Your task to perform on an android device: Clear the shopping cart on walmart.com. Add "razer blackwidow" to the cart on walmart.com Image 0: 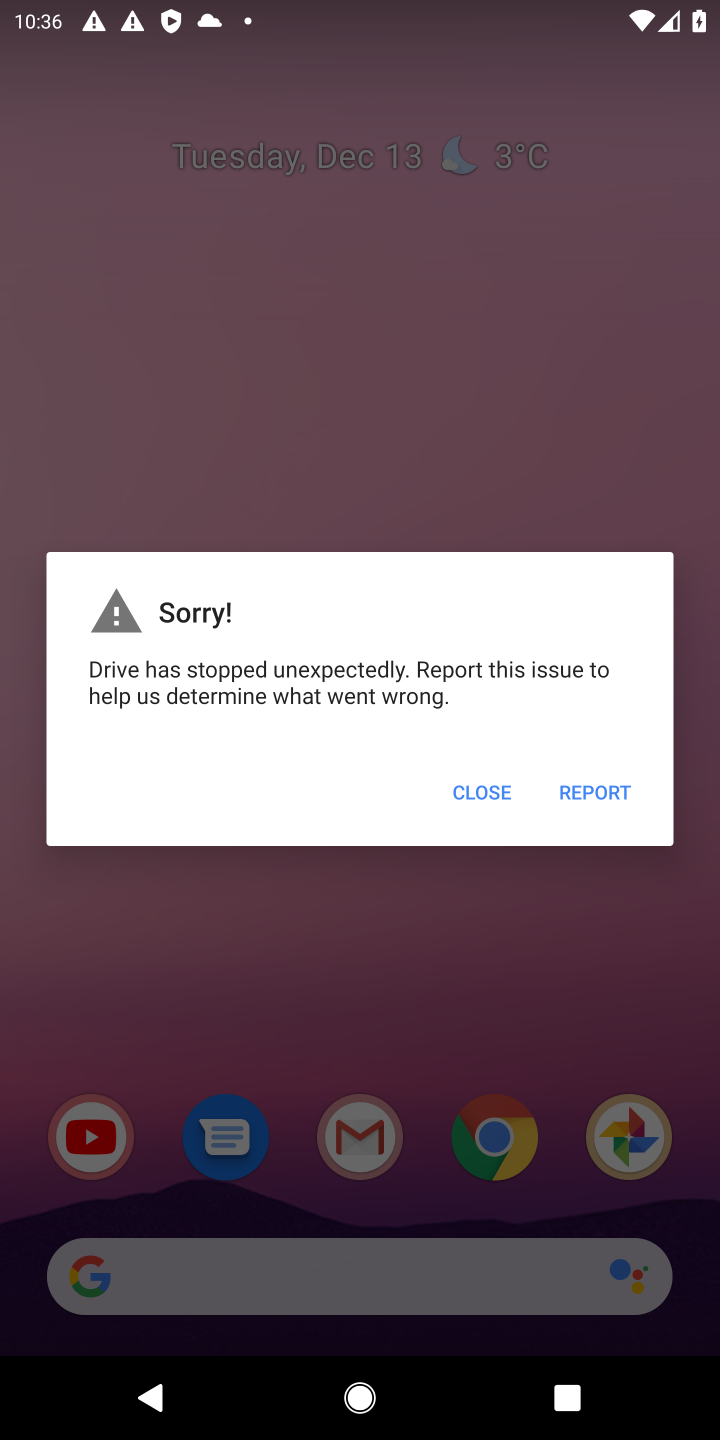
Step 0: click (501, 781)
Your task to perform on an android device: Clear the shopping cart on walmart.com. Add "razer blackwidow" to the cart on walmart.com Image 1: 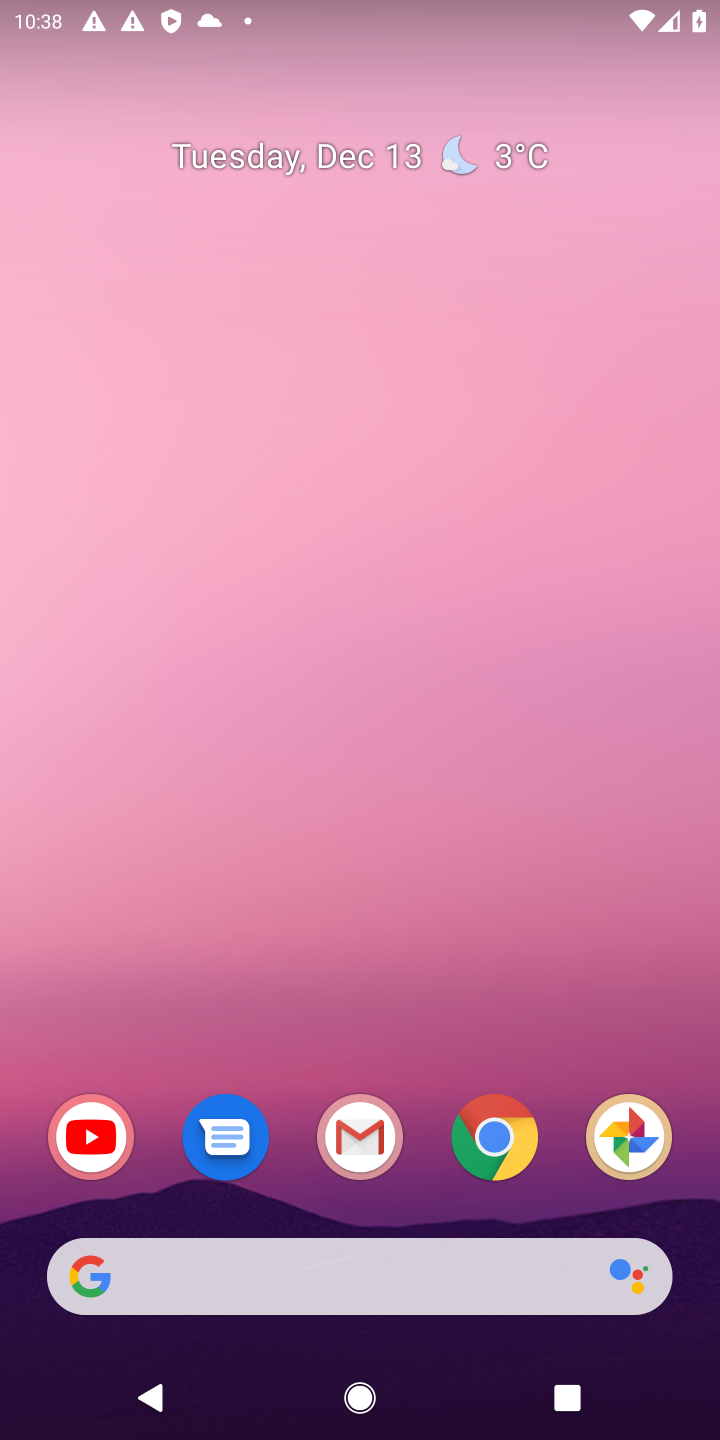
Step 1: click (491, 1122)
Your task to perform on an android device: Clear the shopping cart on walmart.com. Add "razer blackwidow" to the cart on walmart.com Image 2: 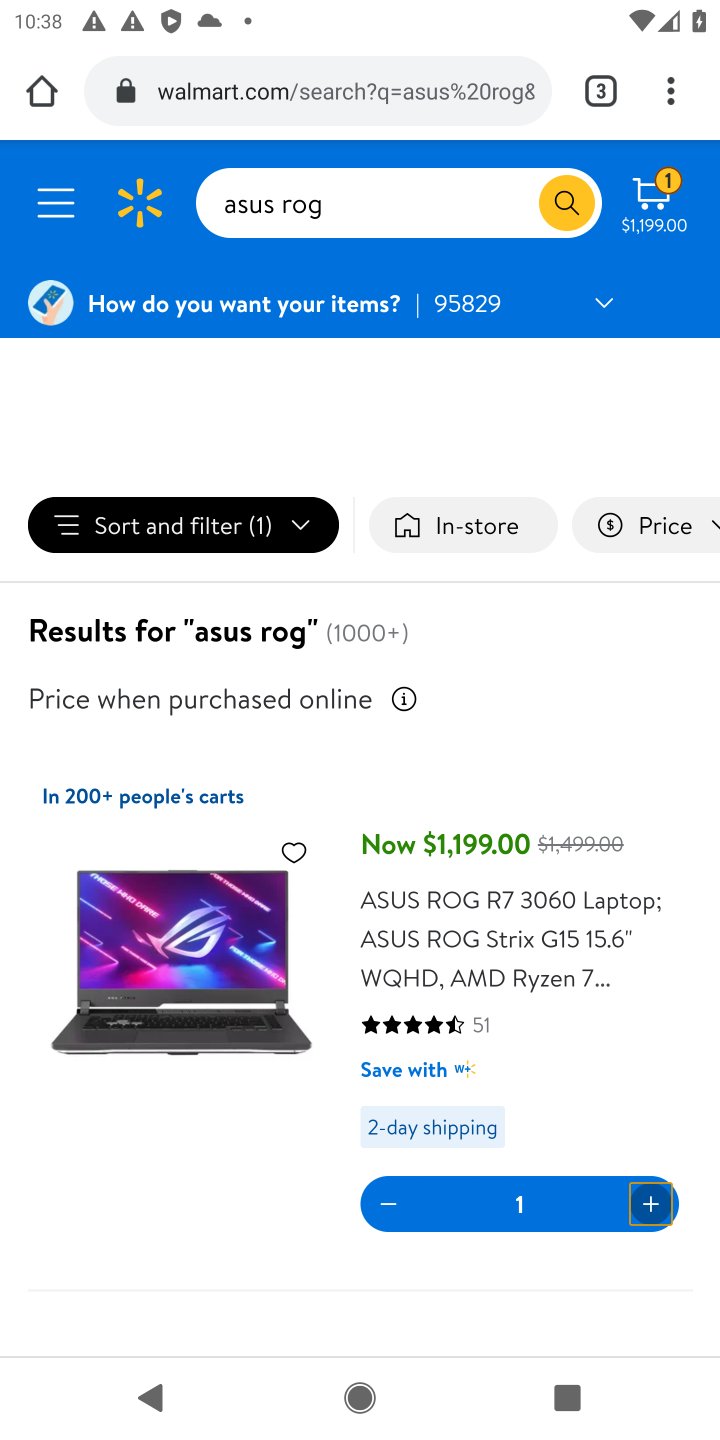
Step 2: click (658, 186)
Your task to perform on an android device: Clear the shopping cart on walmart.com. Add "razer blackwidow" to the cart on walmart.com Image 3: 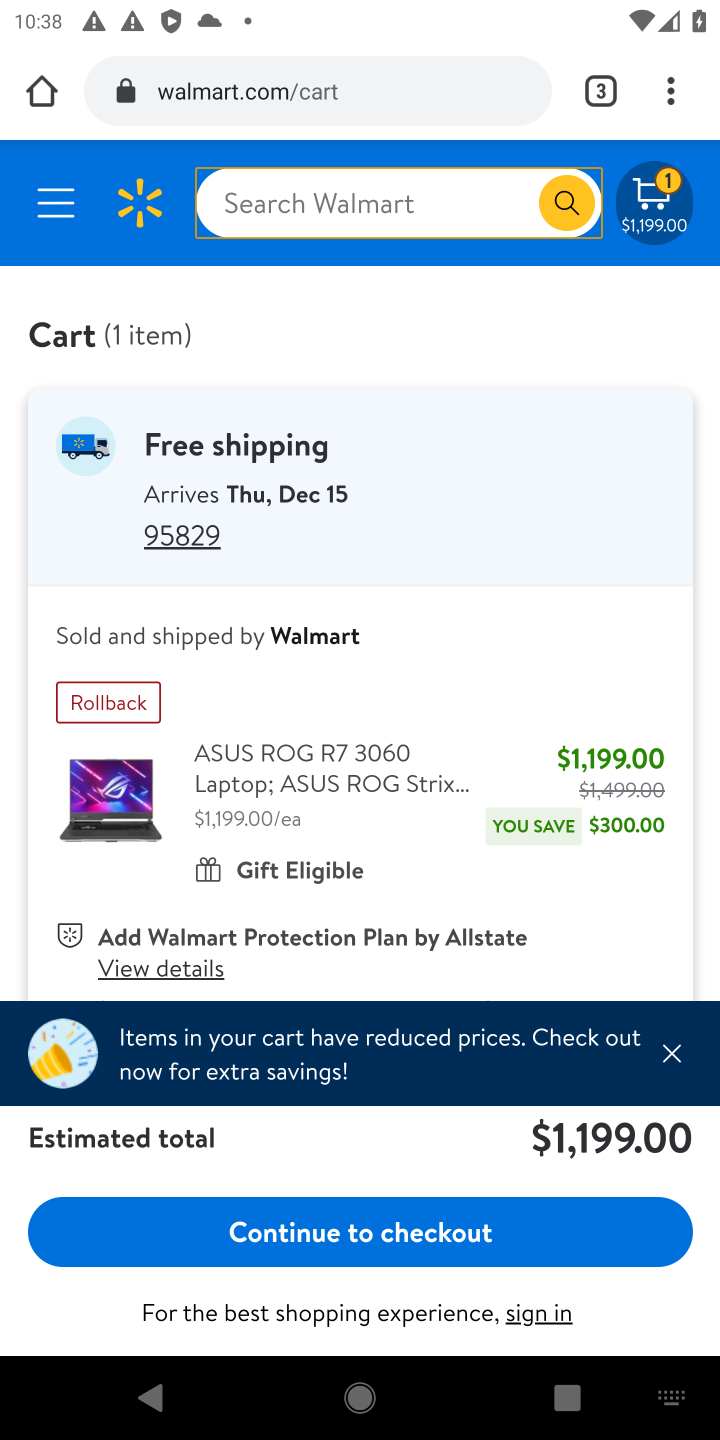
Step 3: click (679, 1054)
Your task to perform on an android device: Clear the shopping cart on walmart.com. Add "razer blackwidow" to the cart on walmart.com Image 4: 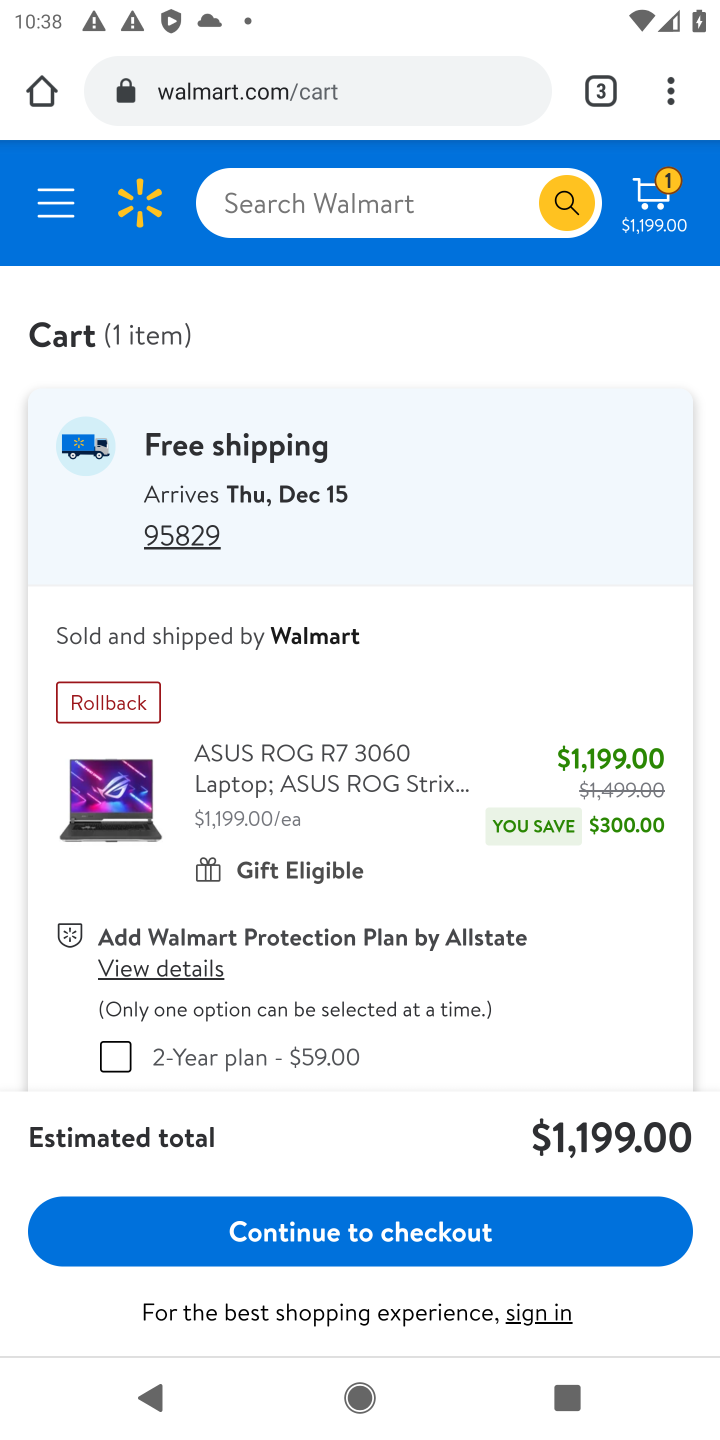
Step 4: drag from (372, 951) to (399, 644)
Your task to perform on an android device: Clear the shopping cart on walmart.com. Add "razer blackwidow" to the cart on walmart.com Image 5: 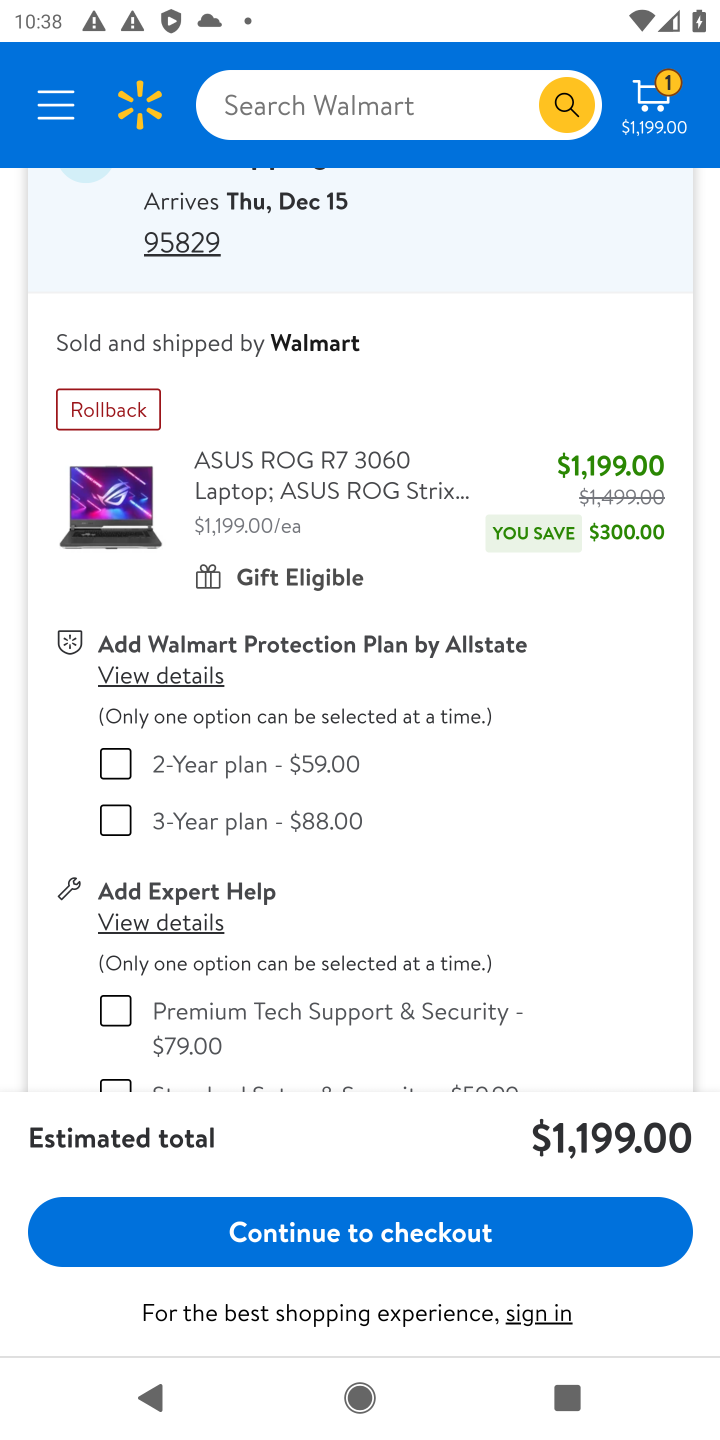
Step 5: drag from (431, 913) to (498, 595)
Your task to perform on an android device: Clear the shopping cart on walmart.com. Add "razer blackwidow" to the cart on walmart.com Image 6: 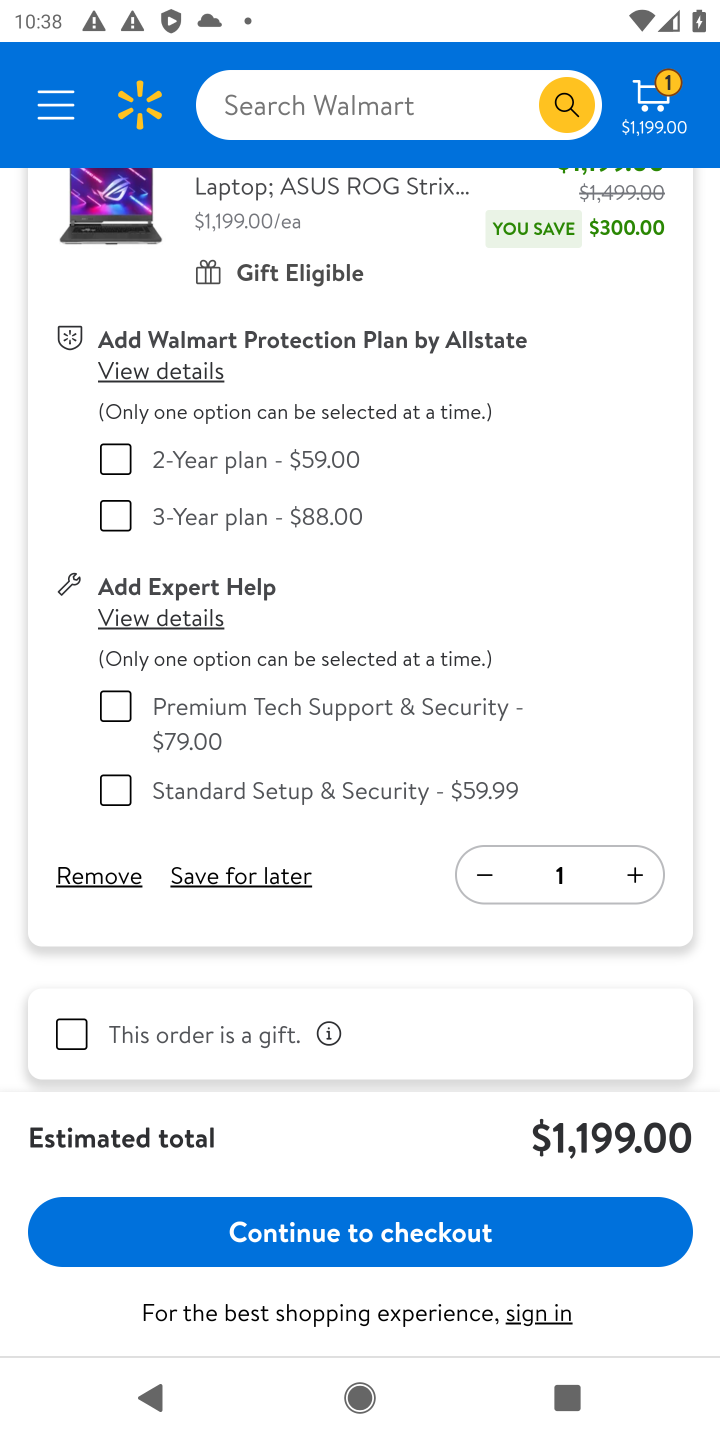
Step 6: click (109, 876)
Your task to perform on an android device: Clear the shopping cart on walmart.com. Add "razer blackwidow" to the cart on walmart.com Image 7: 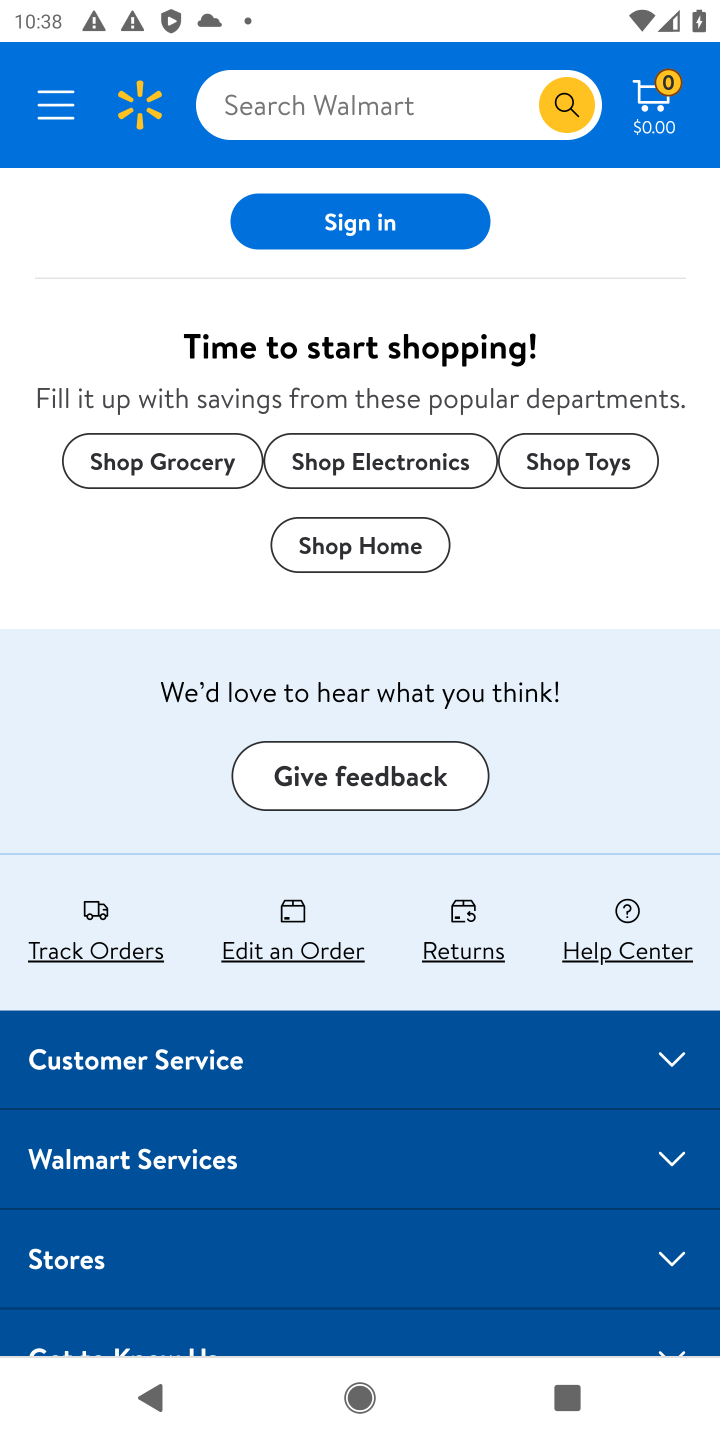
Step 7: click (335, 101)
Your task to perform on an android device: Clear the shopping cart on walmart.com. Add "razer blackwidow" to the cart on walmart.com Image 8: 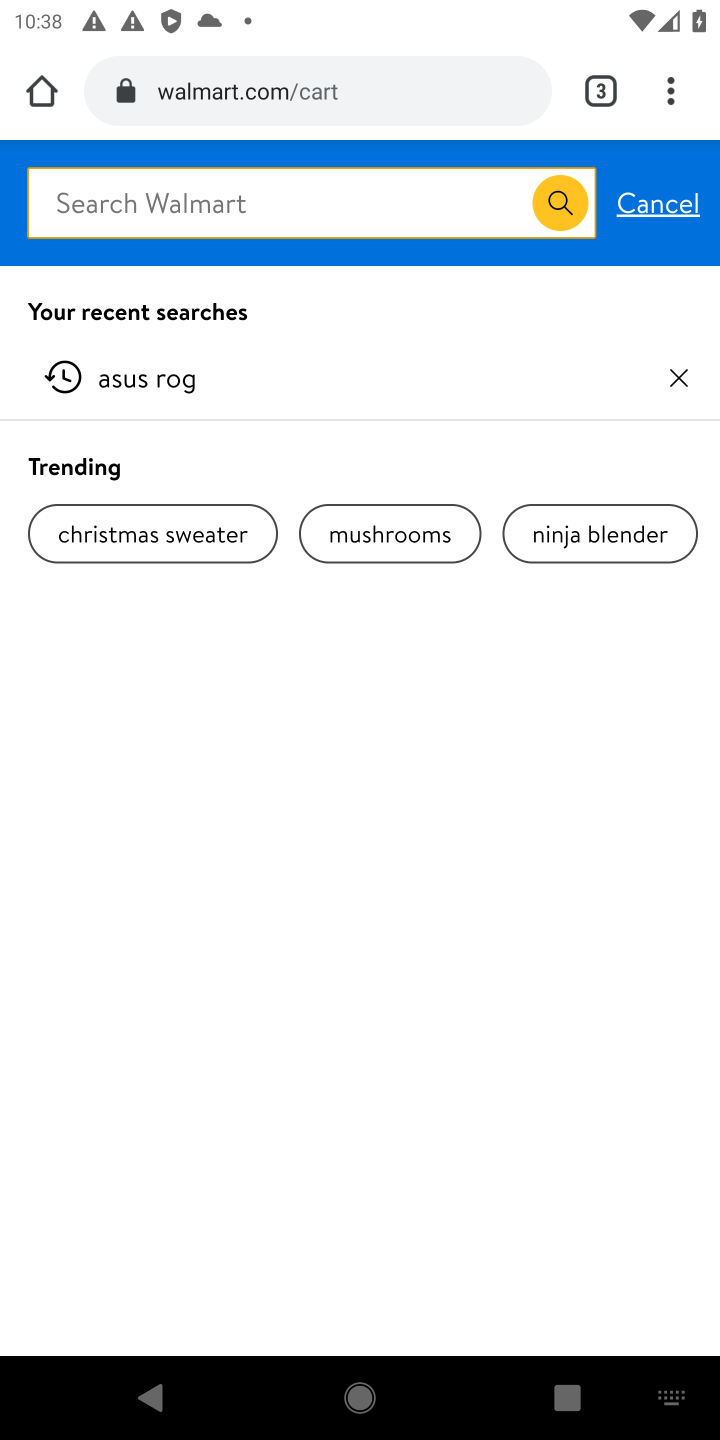
Step 8: type "razer blackwidow"
Your task to perform on an android device: Clear the shopping cart on walmart.com. Add "razer blackwidow" to the cart on walmart.com Image 9: 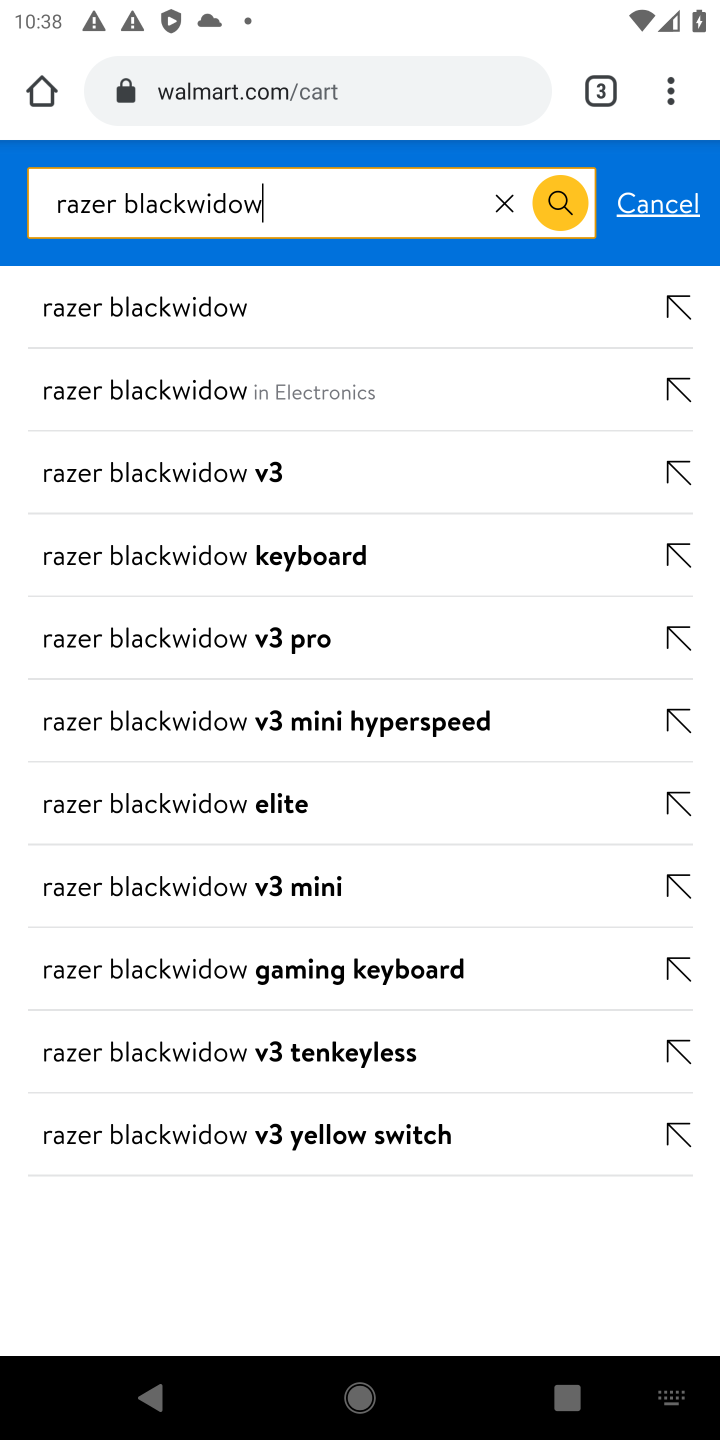
Step 9: click (68, 395)
Your task to perform on an android device: Clear the shopping cart on walmart.com. Add "razer blackwidow" to the cart on walmart.com Image 10: 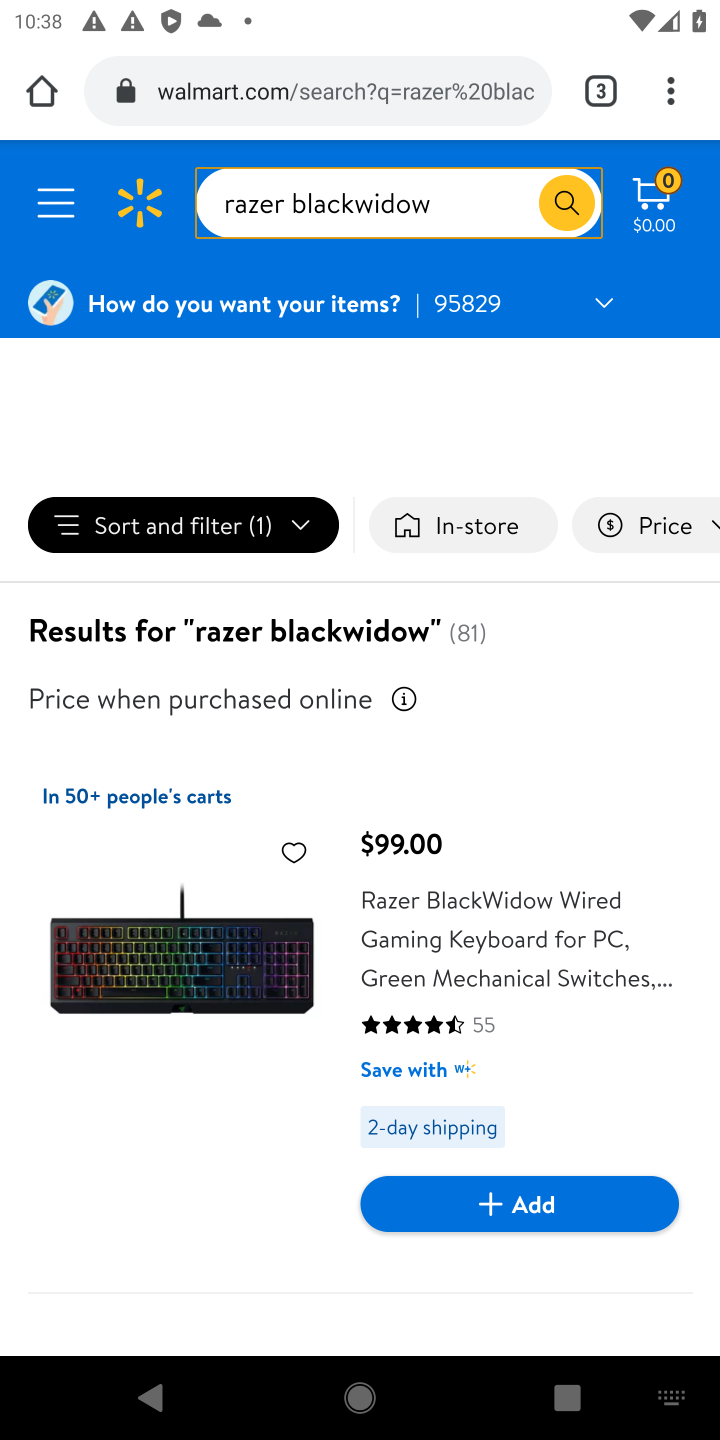
Step 10: click (505, 1201)
Your task to perform on an android device: Clear the shopping cart on walmart.com. Add "razer blackwidow" to the cart on walmart.com Image 11: 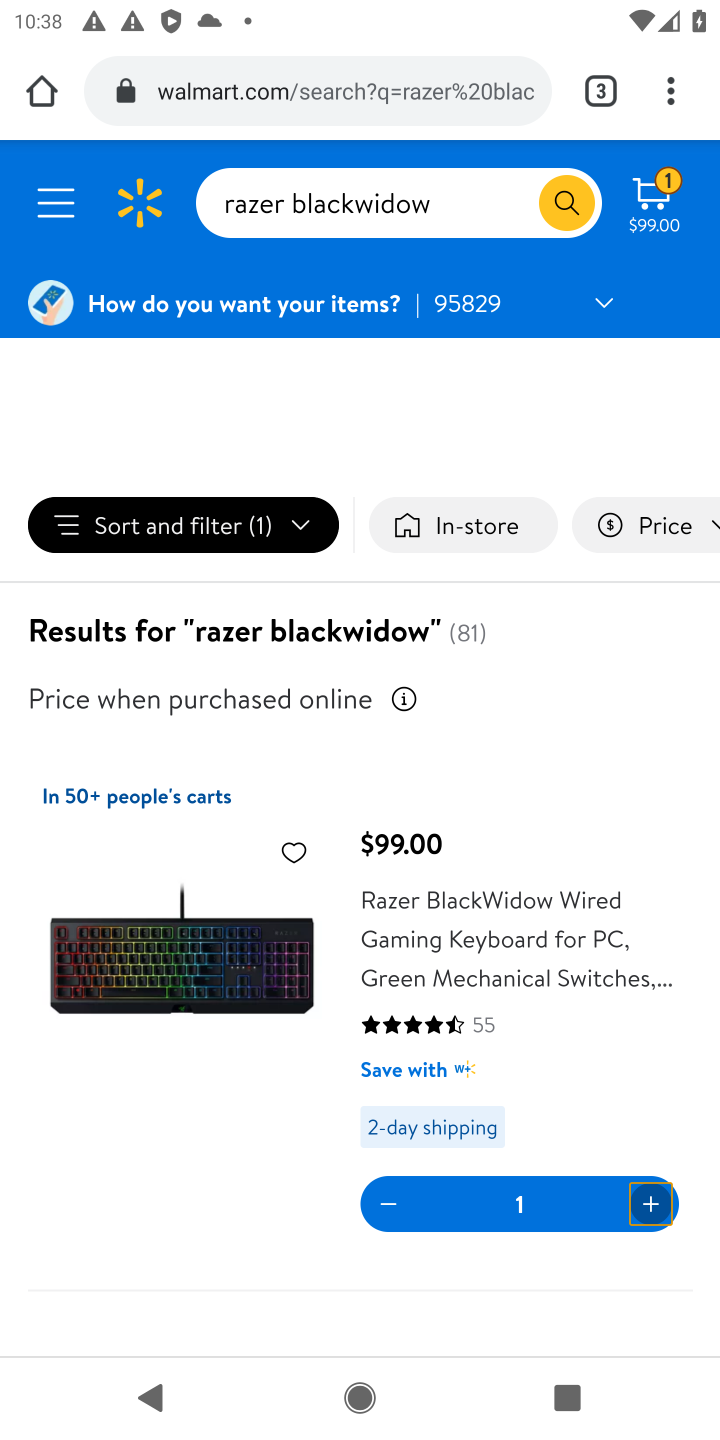
Step 11: task complete